Your task to perform on an android device: Open Yahoo.com Image 0: 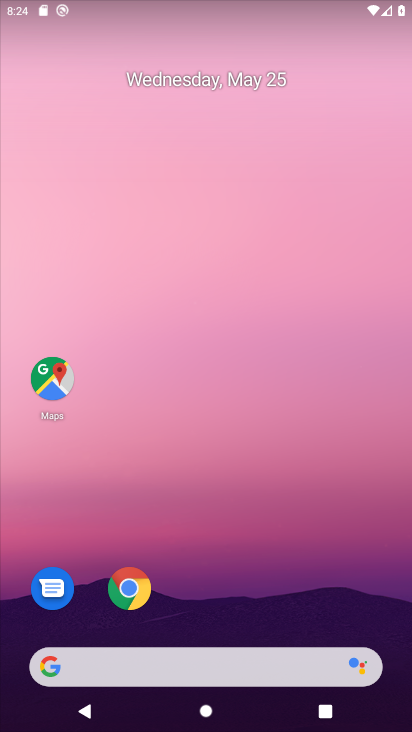
Step 0: drag from (361, 583) to (347, 221)
Your task to perform on an android device: Open Yahoo.com Image 1: 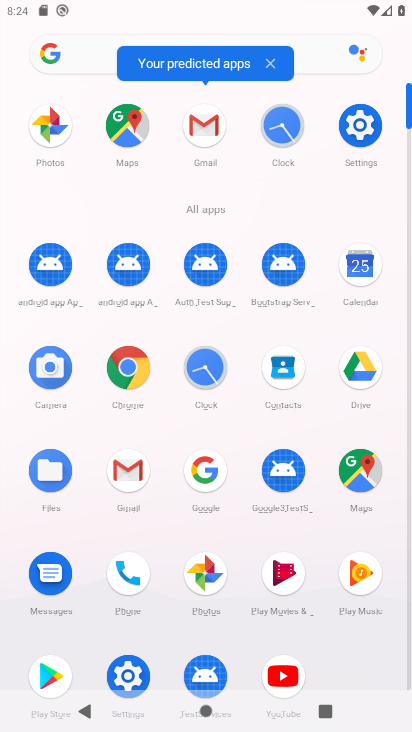
Step 1: click (137, 380)
Your task to perform on an android device: Open Yahoo.com Image 2: 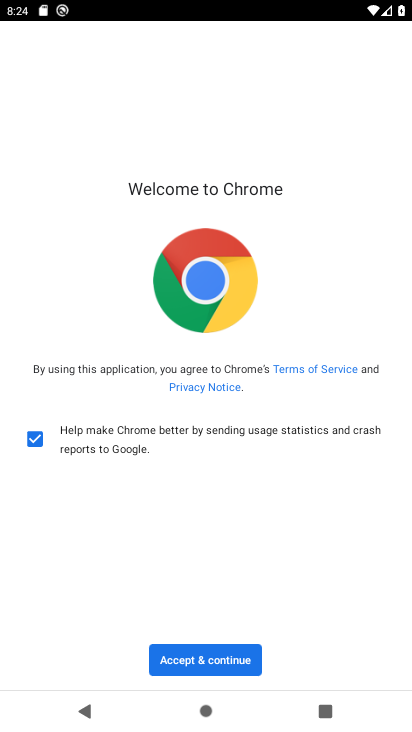
Step 2: click (209, 663)
Your task to perform on an android device: Open Yahoo.com Image 3: 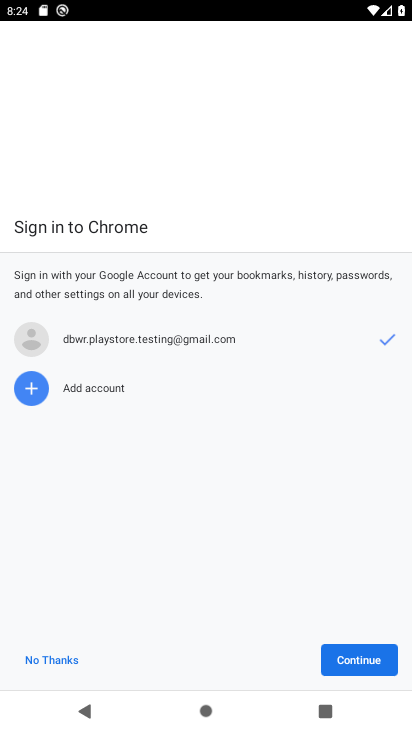
Step 3: click (356, 661)
Your task to perform on an android device: Open Yahoo.com Image 4: 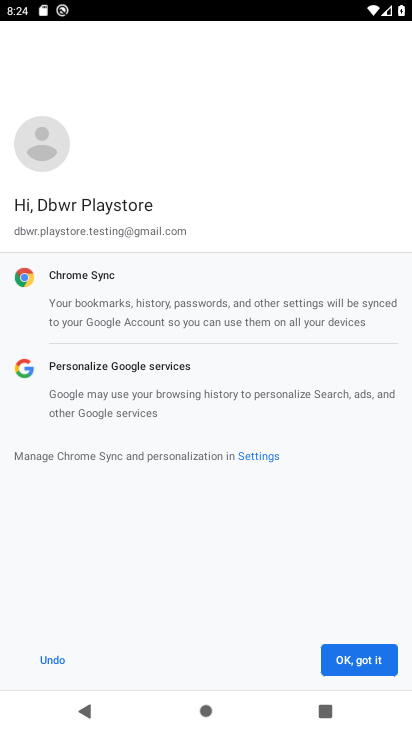
Step 4: click (356, 661)
Your task to perform on an android device: Open Yahoo.com Image 5: 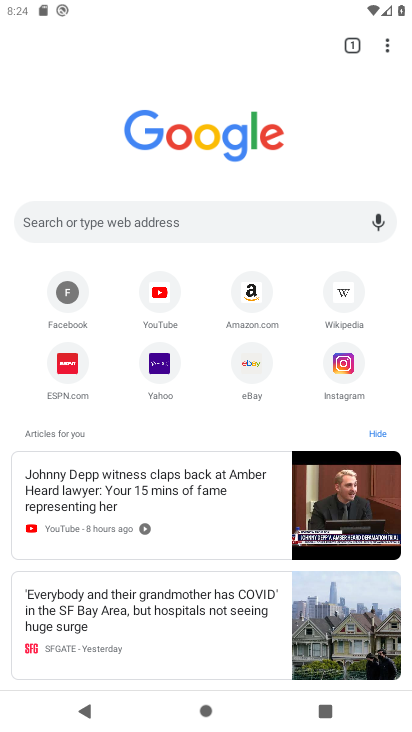
Step 5: click (173, 365)
Your task to perform on an android device: Open Yahoo.com Image 6: 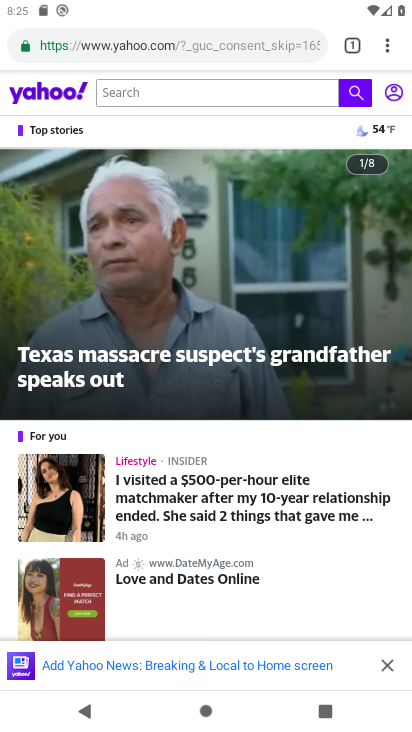
Step 6: task complete